Your task to perform on an android device: turn on showing notifications on the lock screen Image 0: 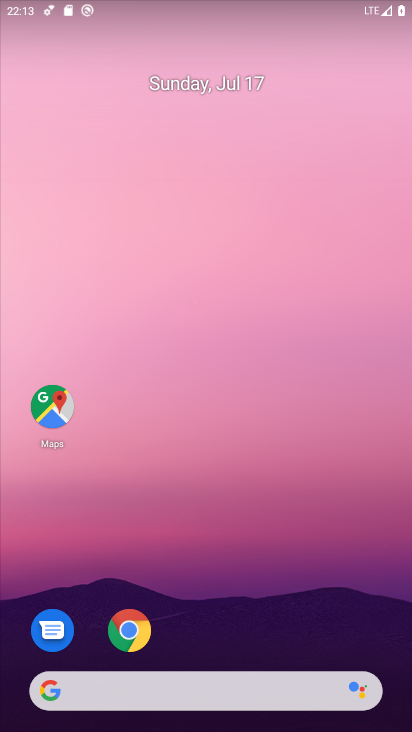
Step 0: drag from (202, 654) to (227, 189)
Your task to perform on an android device: turn on showing notifications on the lock screen Image 1: 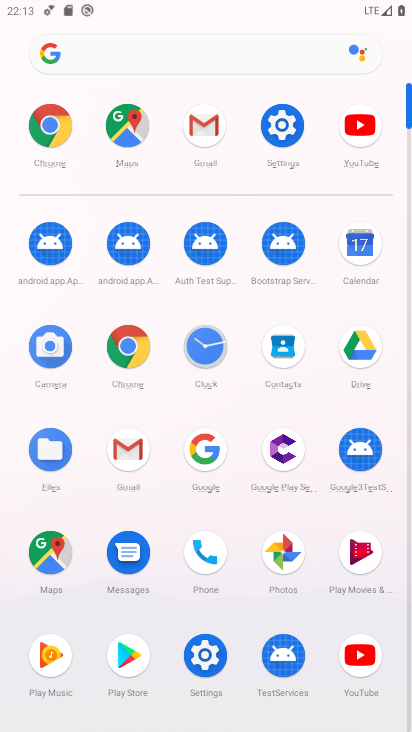
Step 1: click (199, 662)
Your task to perform on an android device: turn on showing notifications on the lock screen Image 2: 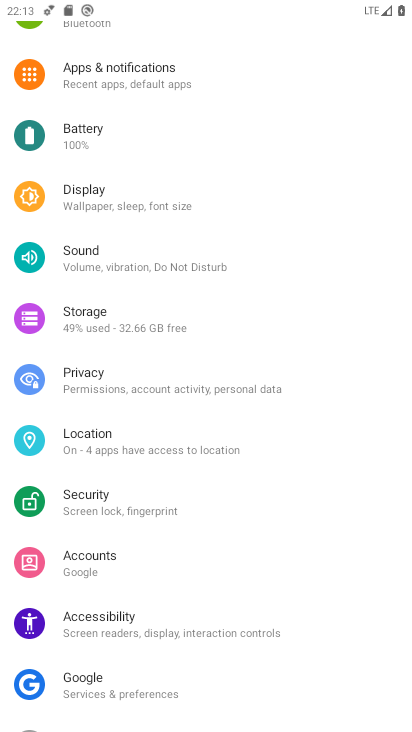
Step 2: click (148, 88)
Your task to perform on an android device: turn on showing notifications on the lock screen Image 3: 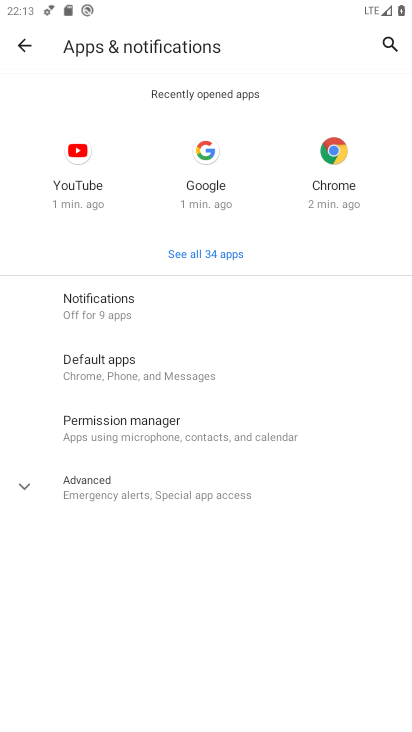
Step 3: click (118, 317)
Your task to perform on an android device: turn on showing notifications on the lock screen Image 4: 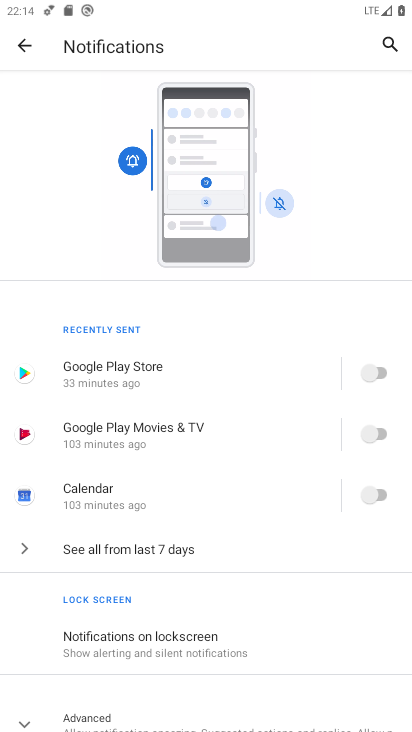
Step 4: drag from (188, 541) to (191, 340)
Your task to perform on an android device: turn on showing notifications on the lock screen Image 5: 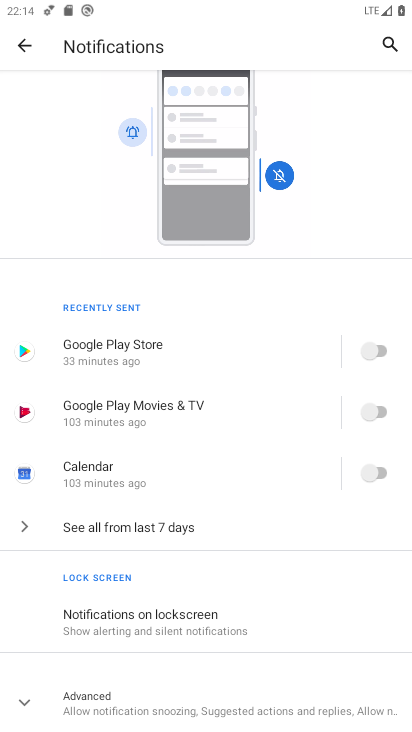
Step 5: click (210, 614)
Your task to perform on an android device: turn on showing notifications on the lock screen Image 6: 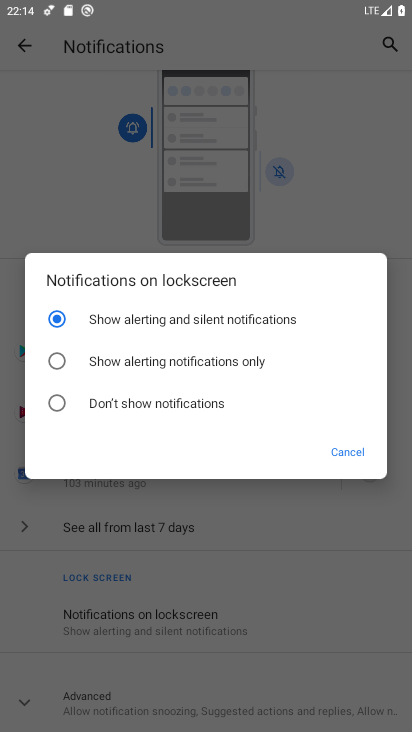
Step 6: task complete